Your task to perform on an android device: empty trash in google photos Image 0: 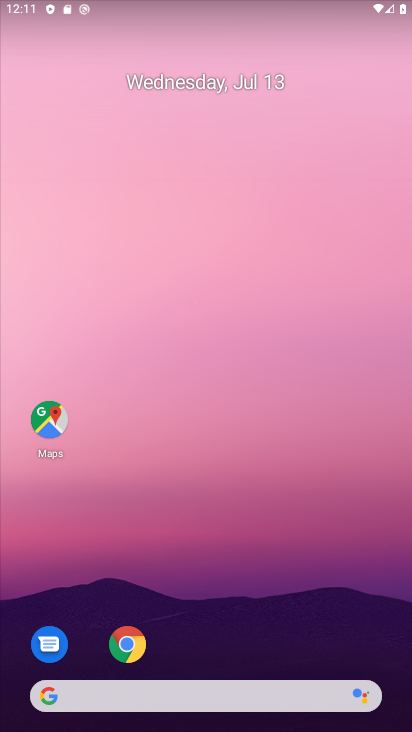
Step 0: drag from (263, 547) to (183, 68)
Your task to perform on an android device: empty trash in google photos Image 1: 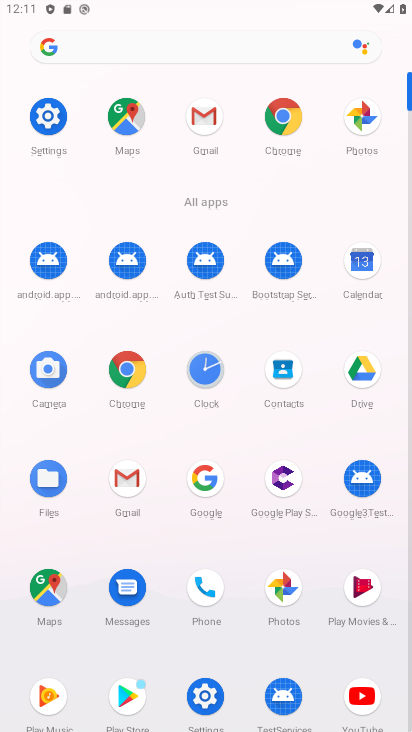
Step 1: click (365, 107)
Your task to perform on an android device: empty trash in google photos Image 2: 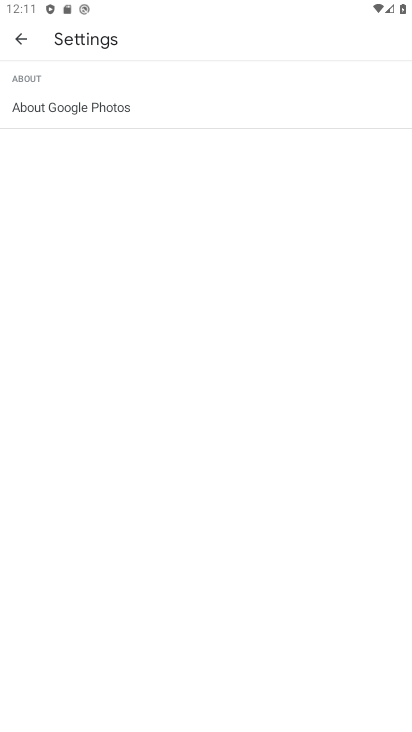
Step 2: click (18, 32)
Your task to perform on an android device: empty trash in google photos Image 3: 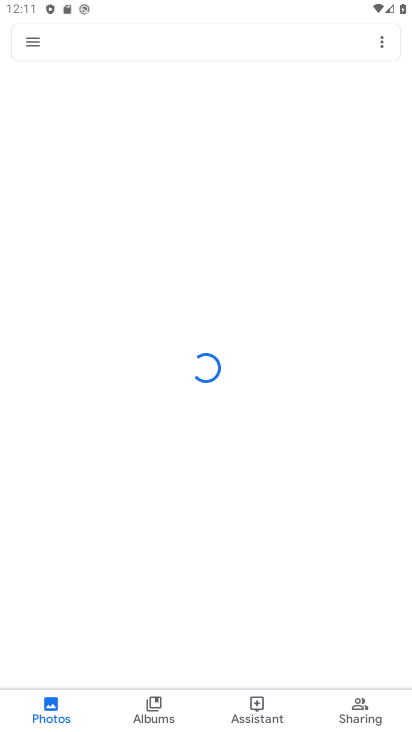
Step 3: click (31, 33)
Your task to perform on an android device: empty trash in google photos Image 4: 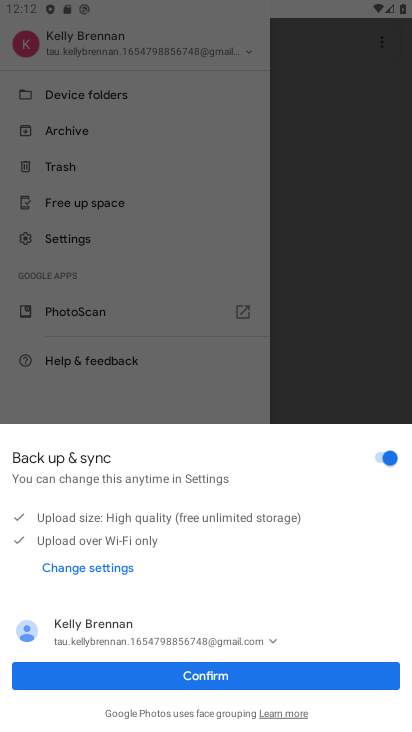
Step 4: click (215, 667)
Your task to perform on an android device: empty trash in google photos Image 5: 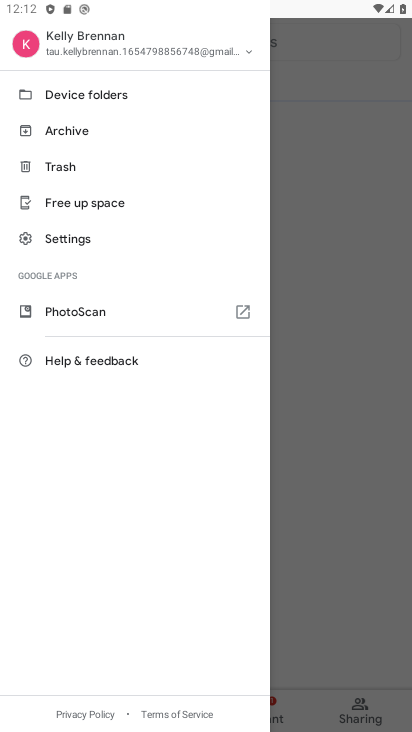
Step 5: click (76, 160)
Your task to perform on an android device: empty trash in google photos Image 6: 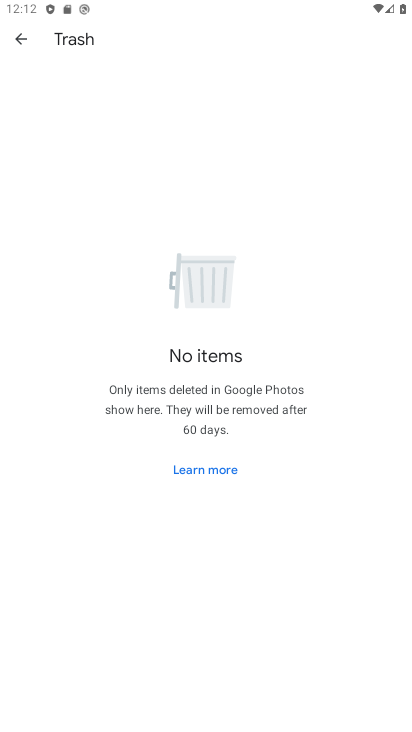
Step 6: task complete